Your task to perform on an android device: Open battery settings Image 0: 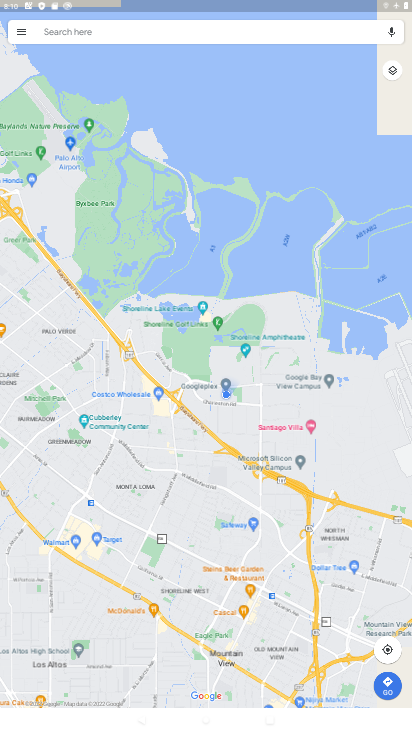
Step 0: press back button
Your task to perform on an android device: Open battery settings Image 1: 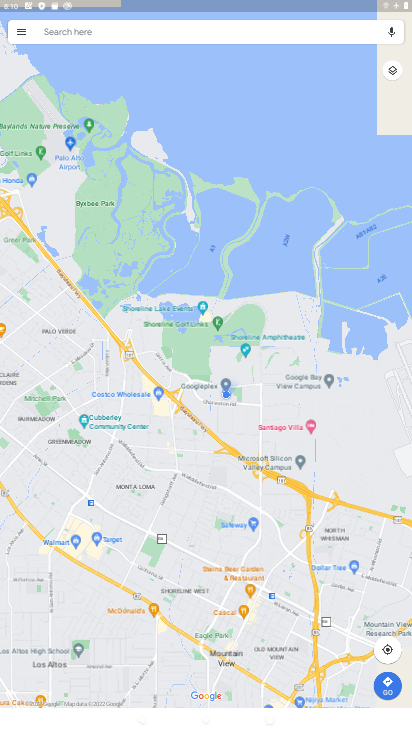
Step 1: press back button
Your task to perform on an android device: Open battery settings Image 2: 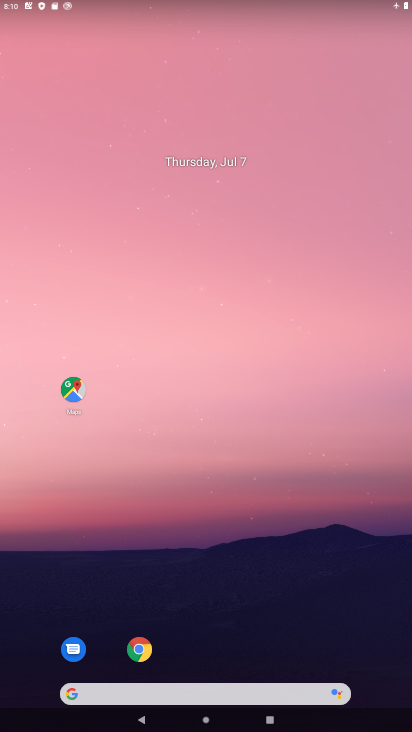
Step 2: press home button
Your task to perform on an android device: Open battery settings Image 3: 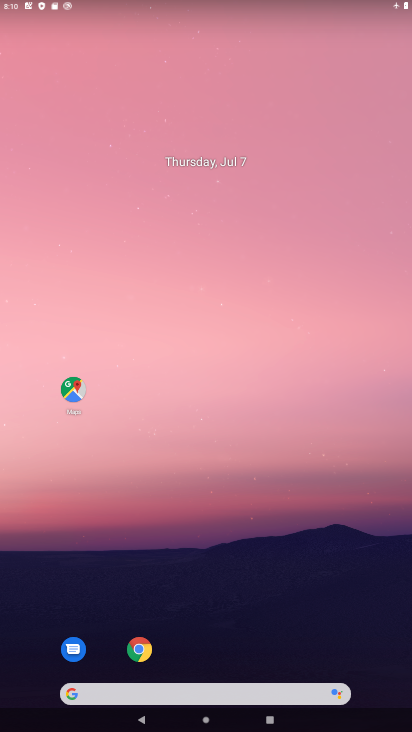
Step 3: press home button
Your task to perform on an android device: Open battery settings Image 4: 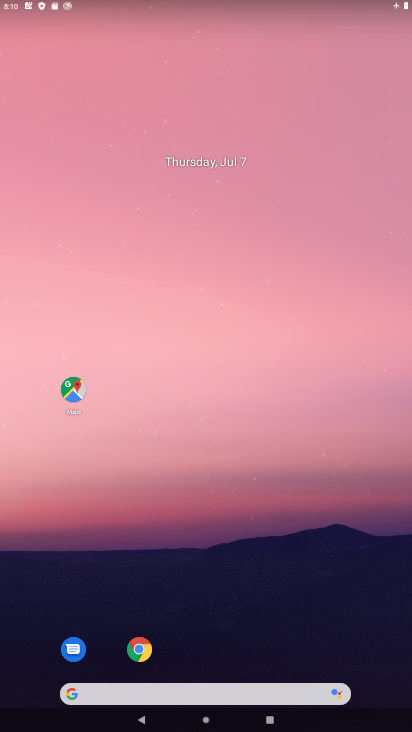
Step 4: drag from (348, 629) to (202, 245)
Your task to perform on an android device: Open battery settings Image 5: 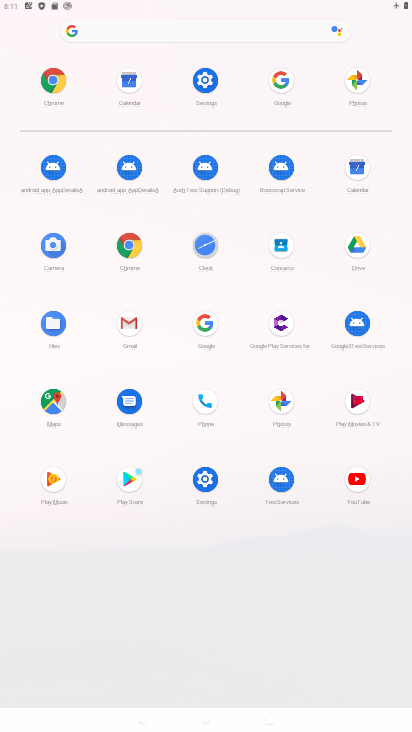
Step 5: click (206, 481)
Your task to perform on an android device: Open battery settings Image 6: 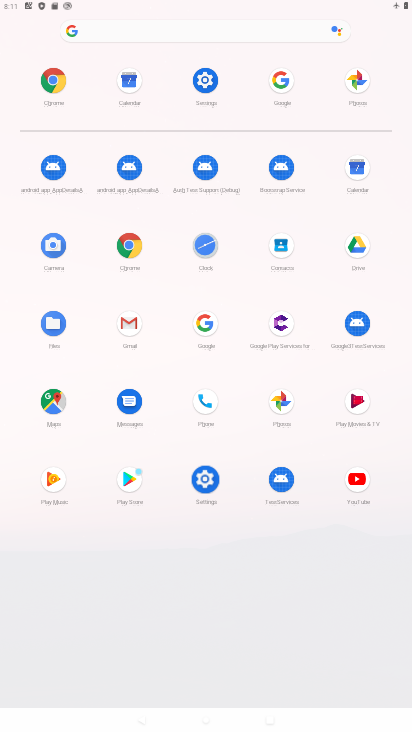
Step 6: click (202, 478)
Your task to perform on an android device: Open battery settings Image 7: 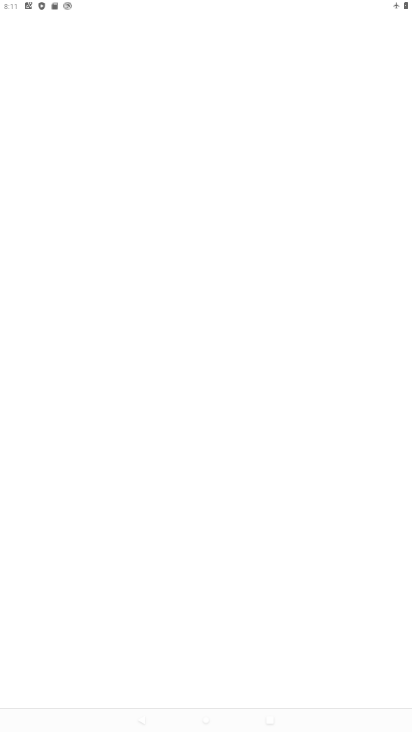
Step 7: click (206, 478)
Your task to perform on an android device: Open battery settings Image 8: 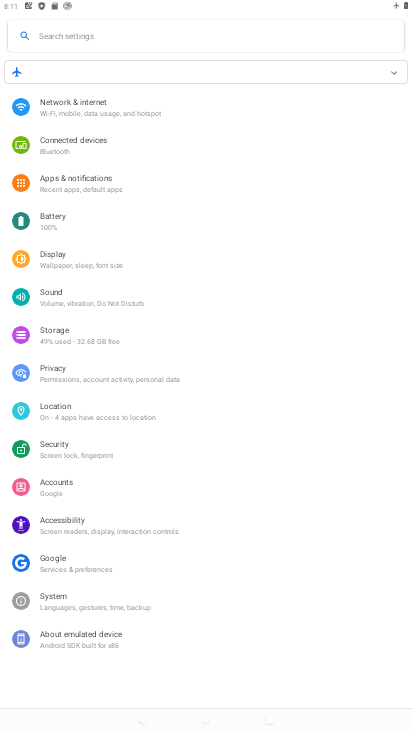
Step 8: click (53, 221)
Your task to perform on an android device: Open battery settings Image 9: 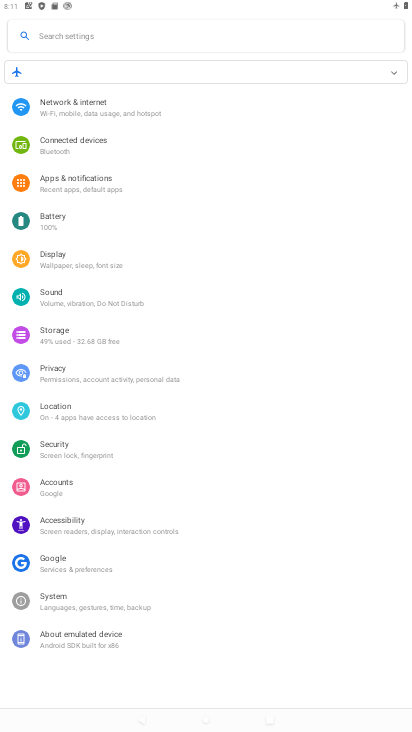
Step 9: click (55, 219)
Your task to perform on an android device: Open battery settings Image 10: 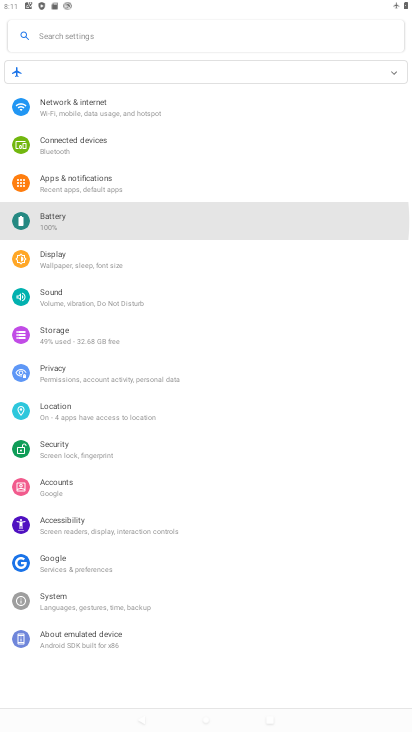
Step 10: click (57, 220)
Your task to perform on an android device: Open battery settings Image 11: 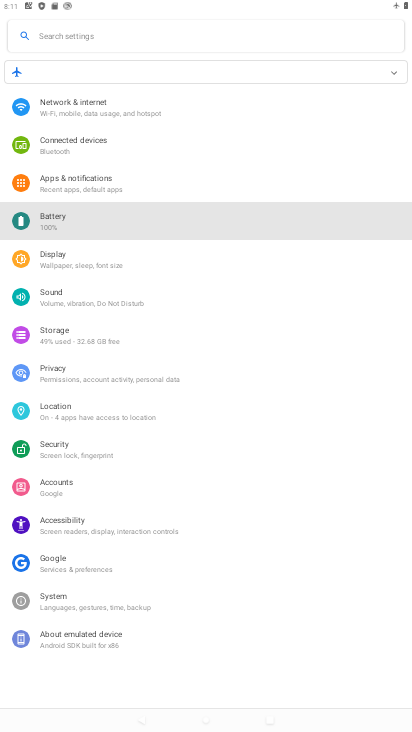
Step 11: click (58, 221)
Your task to perform on an android device: Open battery settings Image 12: 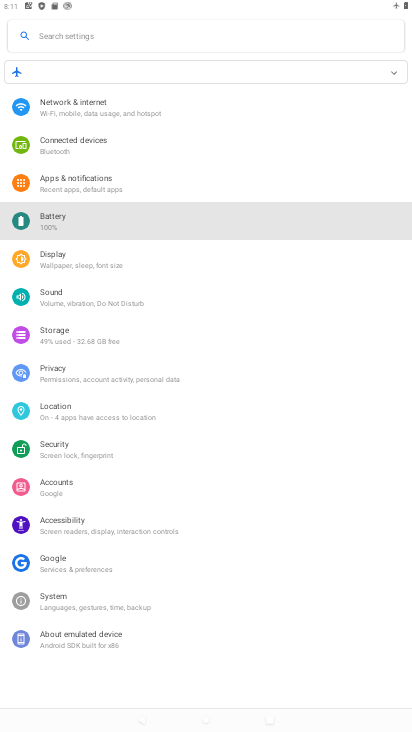
Step 12: click (62, 226)
Your task to perform on an android device: Open battery settings Image 13: 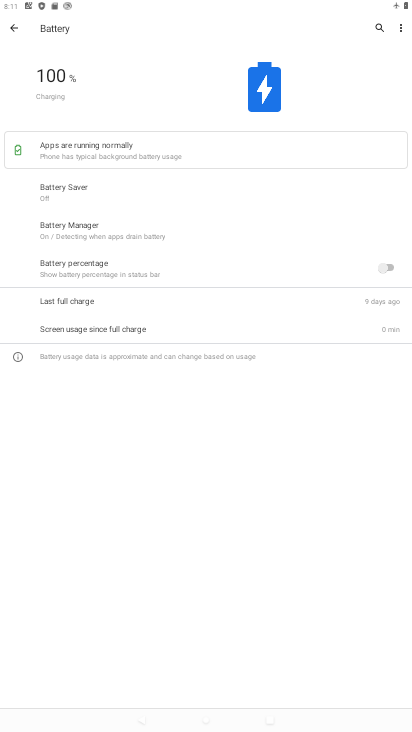
Step 13: task complete